Your task to perform on an android device: open app "Facebook" Image 0: 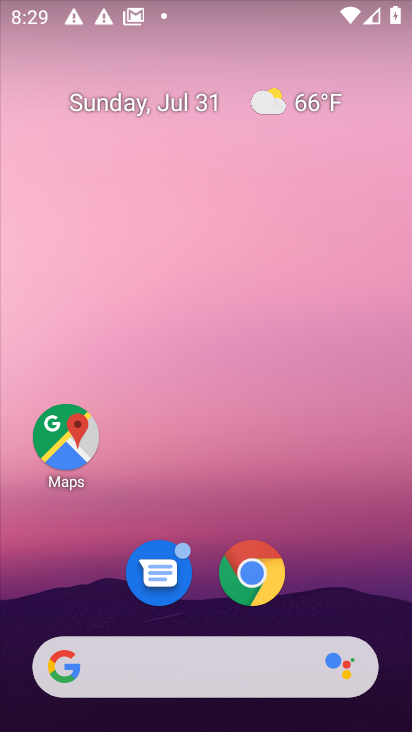
Step 0: drag from (121, 487) to (132, 44)
Your task to perform on an android device: open app "Facebook" Image 1: 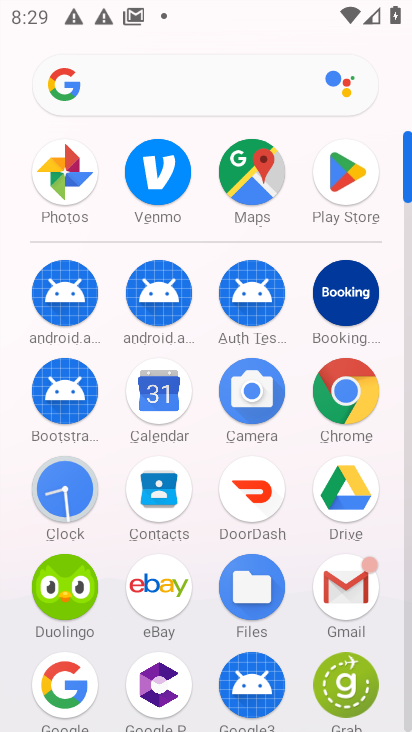
Step 1: click (353, 196)
Your task to perform on an android device: open app "Facebook" Image 2: 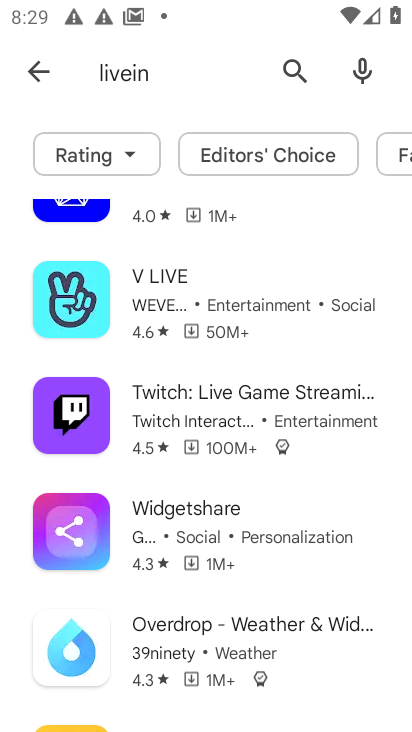
Step 2: click (174, 77)
Your task to perform on an android device: open app "Facebook" Image 3: 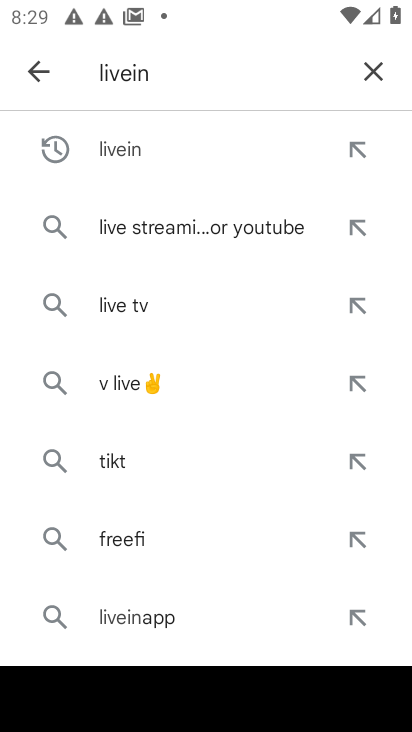
Step 3: click (375, 72)
Your task to perform on an android device: open app "Facebook" Image 4: 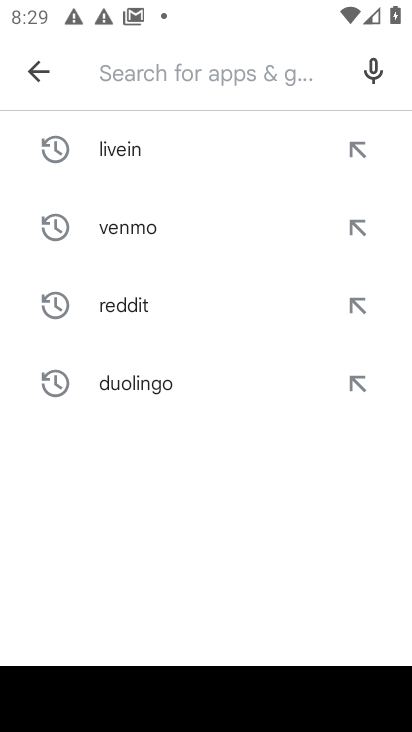
Step 4: type "facebook"
Your task to perform on an android device: open app "Facebook" Image 5: 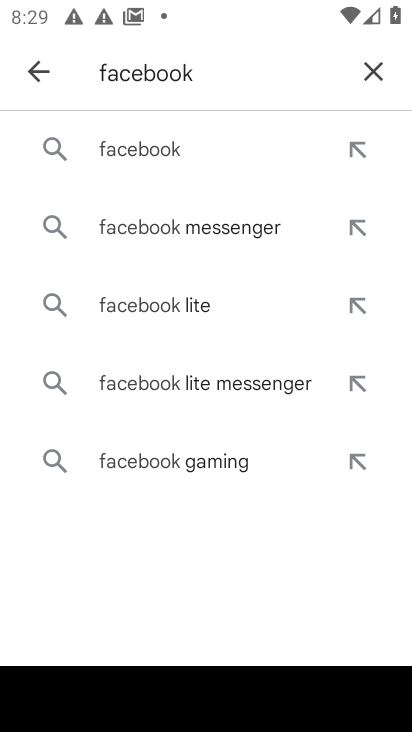
Step 5: click (134, 153)
Your task to perform on an android device: open app "Facebook" Image 6: 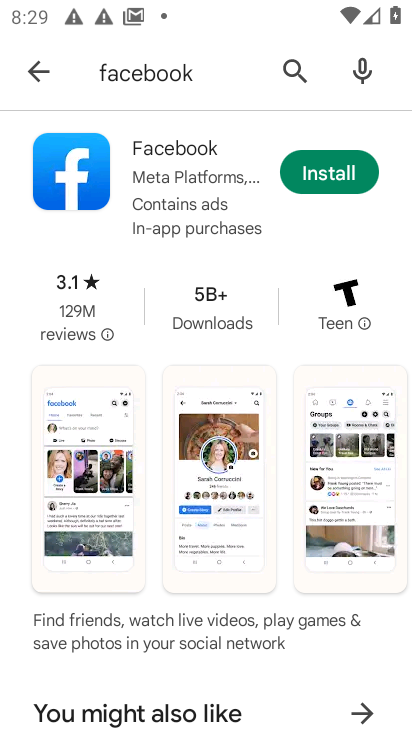
Step 6: task complete